Your task to perform on an android device: turn on translation in the chrome app Image 0: 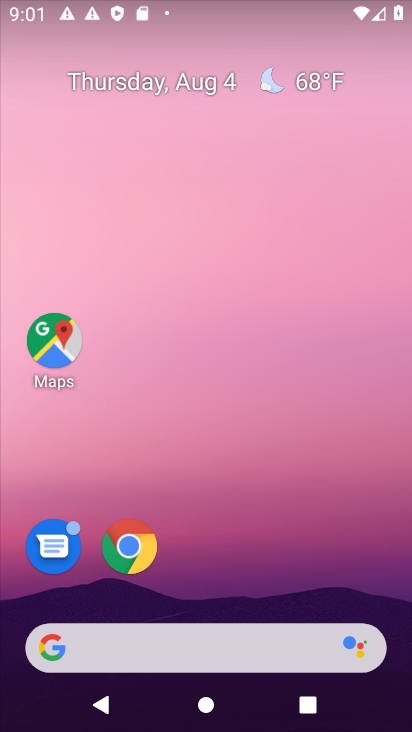
Step 0: press home button
Your task to perform on an android device: turn on translation in the chrome app Image 1: 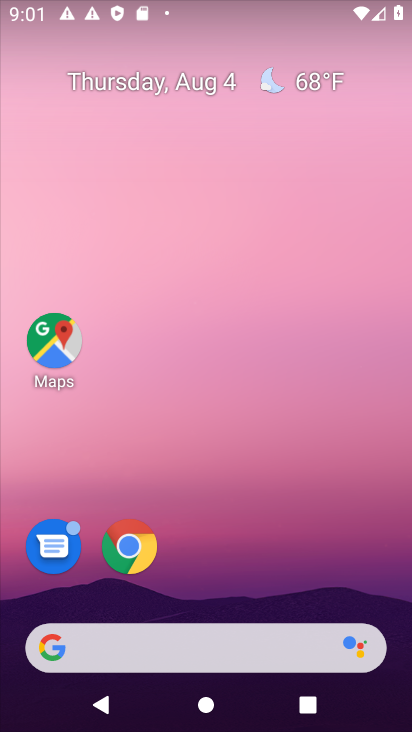
Step 1: drag from (271, 574) to (318, 225)
Your task to perform on an android device: turn on translation in the chrome app Image 2: 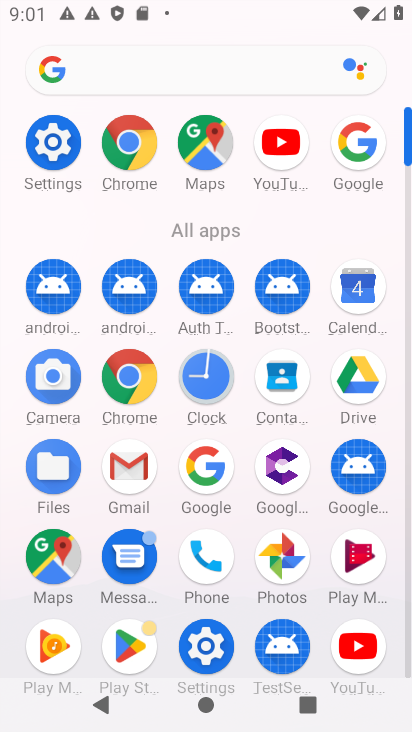
Step 2: click (128, 153)
Your task to perform on an android device: turn on translation in the chrome app Image 3: 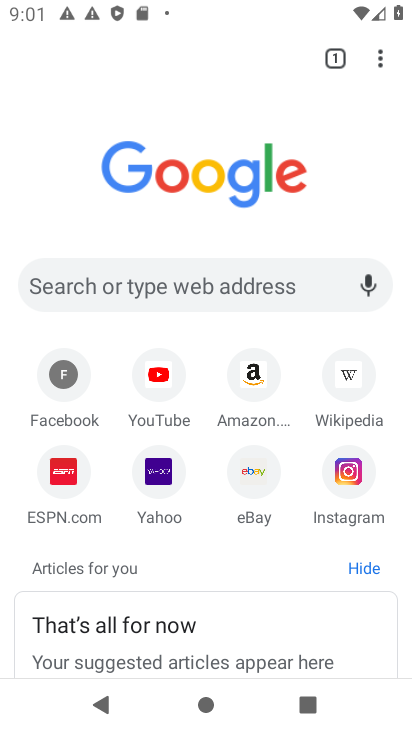
Step 3: drag from (382, 52) to (187, 493)
Your task to perform on an android device: turn on translation in the chrome app Image 4: 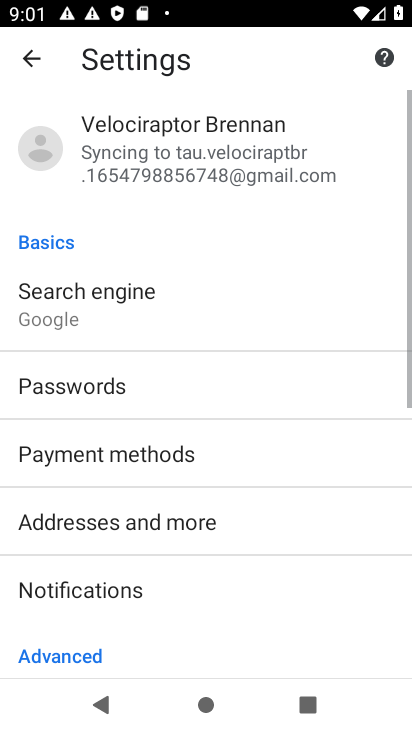
Step 4: drag from (310, 589) to (292, 93)
Your task to perform on an android device: turn on translation in the chrome app Image 5: 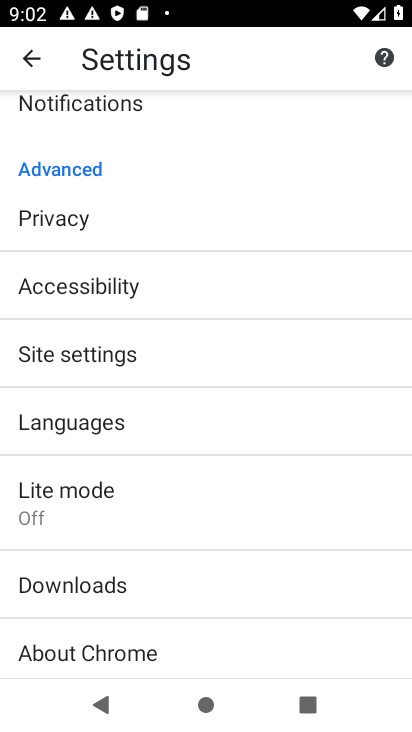
Step 5: click (68, 427)
Your task to perform on an android device: turn on translation in the chrome app Image 6: 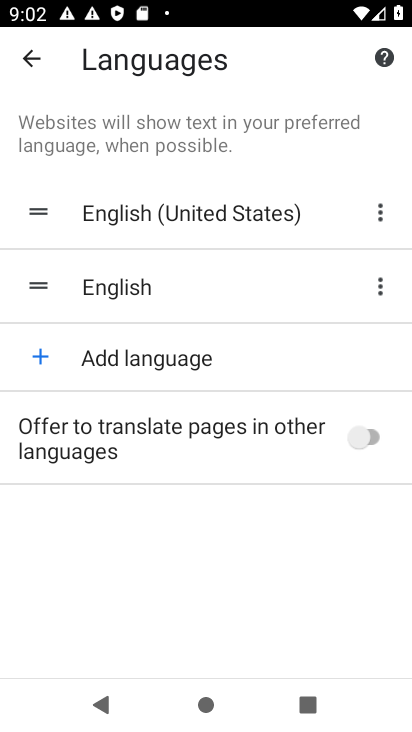
Step 6: click (359, 436)
Your task to perform on an android device: turn on translation in the chrome app Image 7: 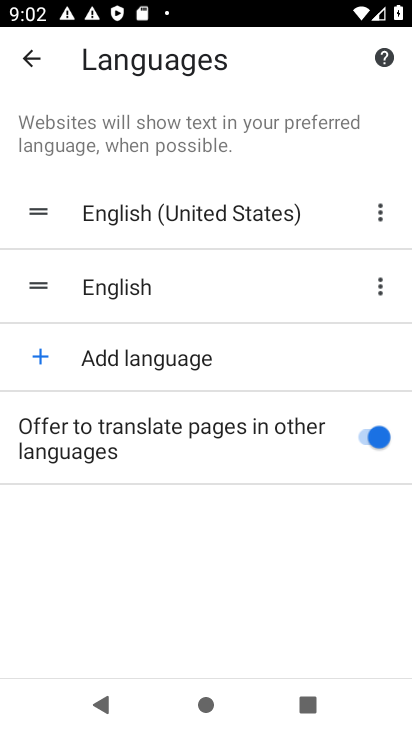
Step 7: task complete